Your task to perform on an android device: Go to settings Image 0: 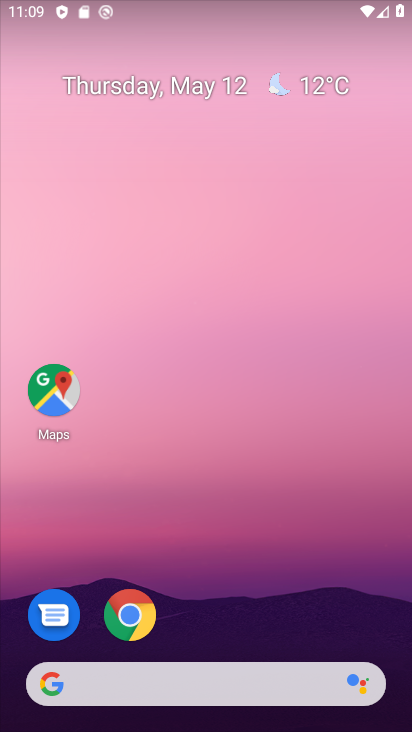
Step 0: drag from (234, 620) to (225, 176)
Your task to perform on an android device: Go to settings Image 1: 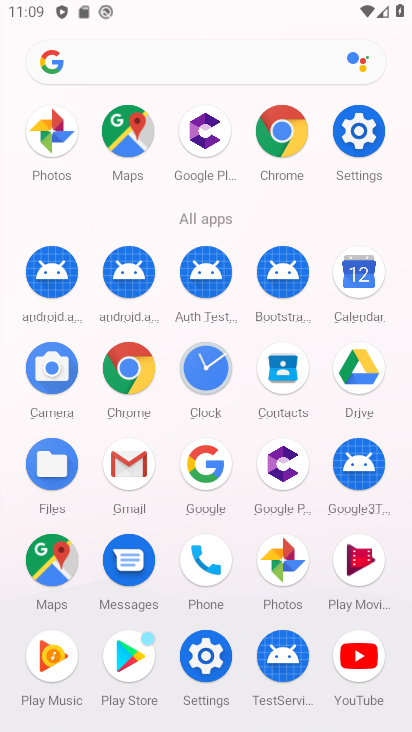
Step 1: click (366, 149)
Your task to perform on an android device: Go to settings Image 2: 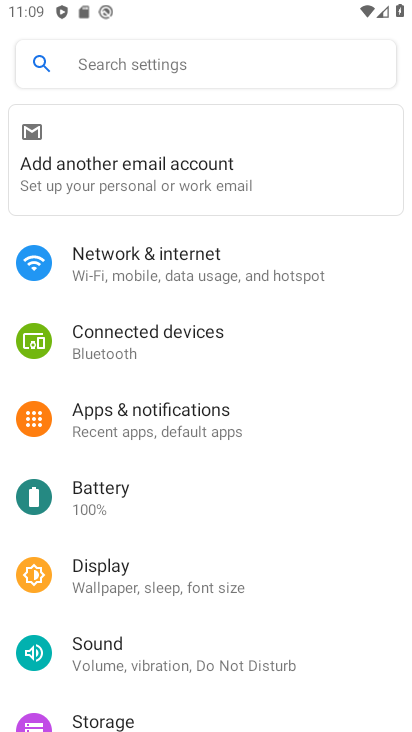
Step 2: task complete